Your task to perform on an android device: Open the phone app and click the voicemail tab. Image 0: 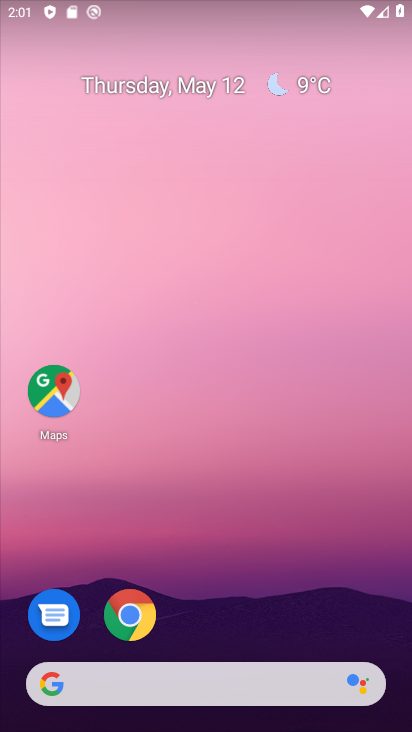
Step 0: drag from (236, 675) to (225, 96)
Your task to perform on an android device: Open the phone app and click the voicemail tab. Image 1: 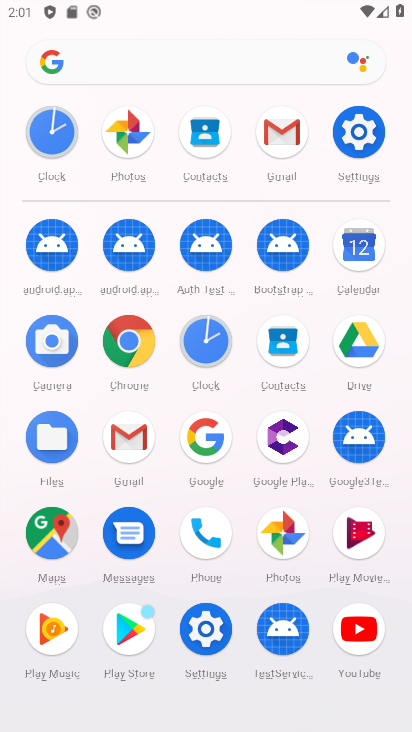
Step 1: click (221, 543)
Your task to perform on an android device: Open the phone app and click the voicemail tab. Image 2: 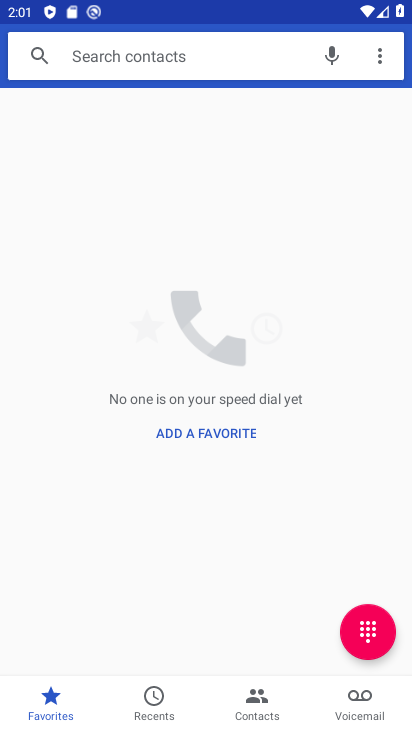
Step 2: click (347, 705)
Your task to perform on an android device: Open the phone app and click the voicemail tab. Image 3: 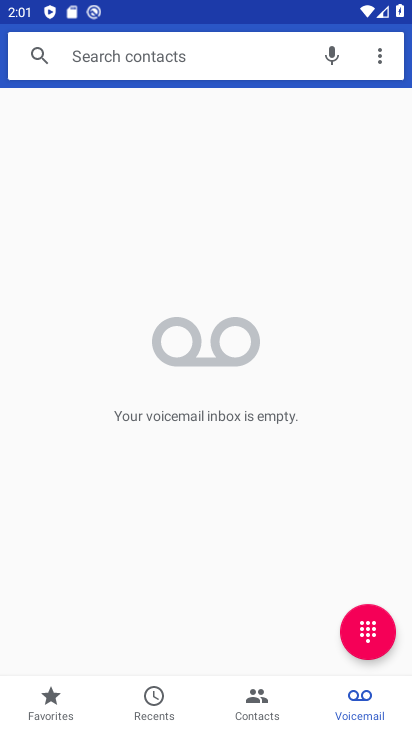
Step 3: task complete